Your task to perform on an android device: Go to Amazon Image 0: 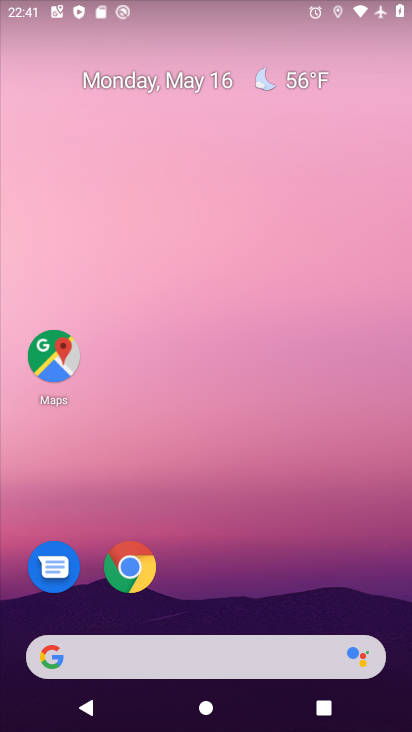
Step 0: click (134, 562)
Your task to perform on an android device: Go to Amazon Image 1: 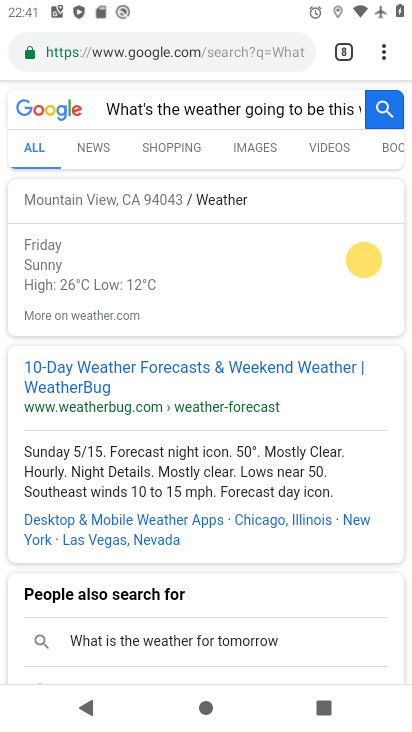
Step 1: click (376, 50)
Your task to perform on an android device: Go to Amazon Image 2: 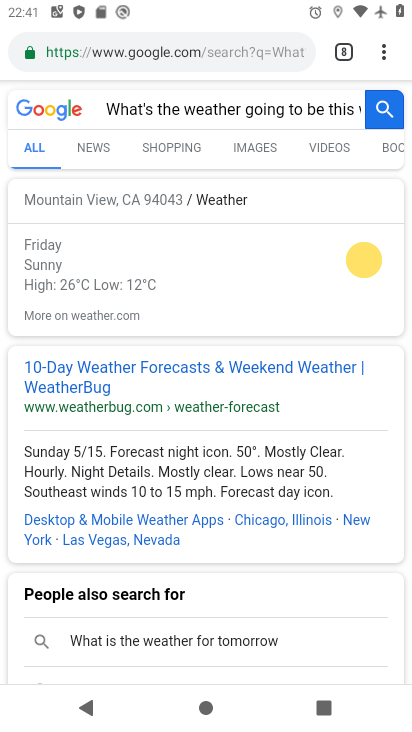
Step 2: click (380, 54)
Your task to perform on an android device: Go to Amazon Image 3: 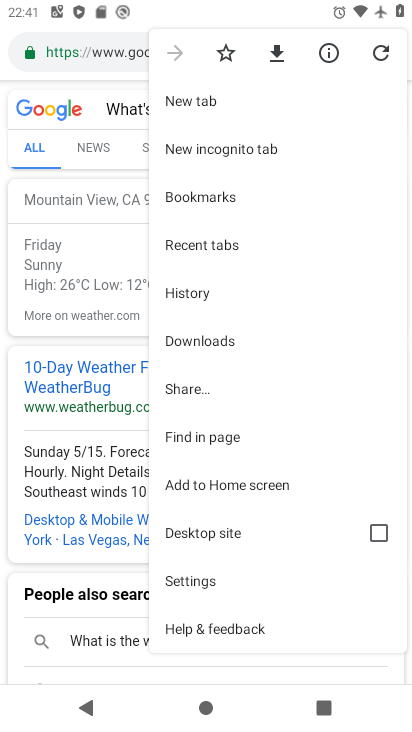
Step 3: click (216, 93)
Your task to perform on an android device: Go to Amazon Image 4: 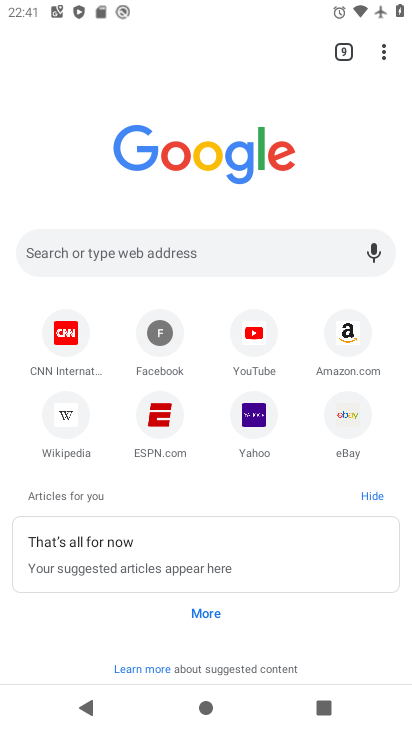
Step 4: click (343, 334)
Your task to perform on an android device: Go to Amazon Image 5: 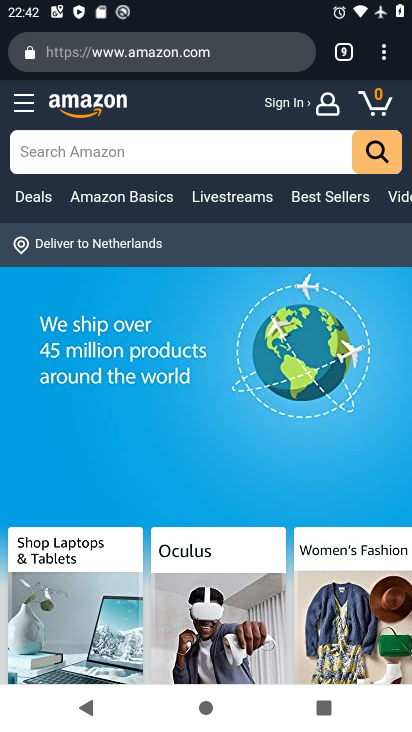
Step 5: task complete